Your task to perform on an android device: find photos in the google photos app Image 0: 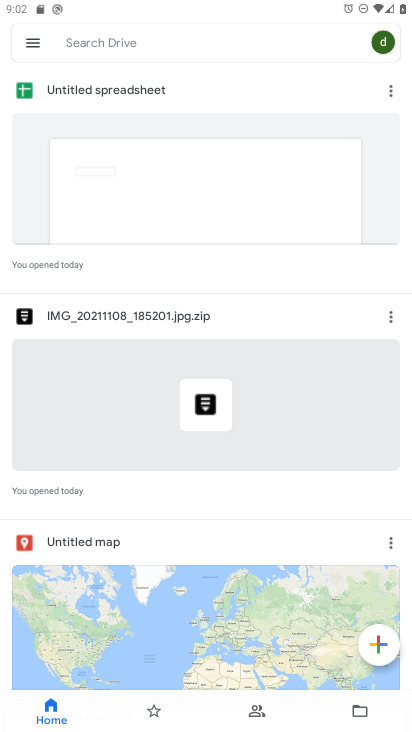
Step 0: press home button
Your task to perform on an android device: find photos in the google photos app Image 1: 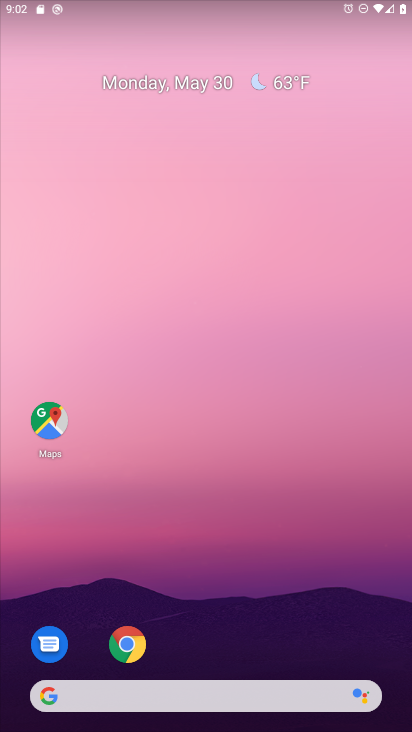
Step 1: drag from (192, 644) to (184, 80)
Your task to perform on an android device: find photos in the google photos app Image 2: 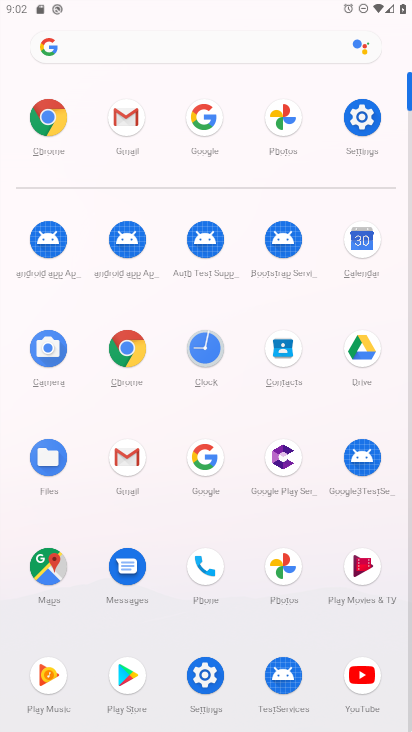
Step 2: click (279, 567)
Your task to perform on an android device: find photos in the google photos app Image 3: 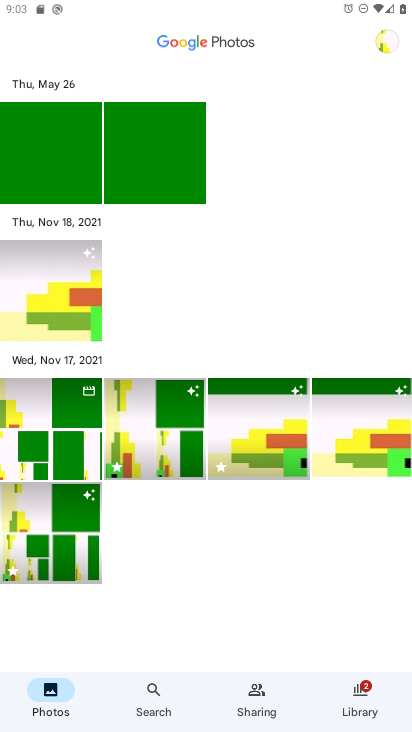
Step 3: task complete